Your task to perform on an android device: change notifications settings Image 0: 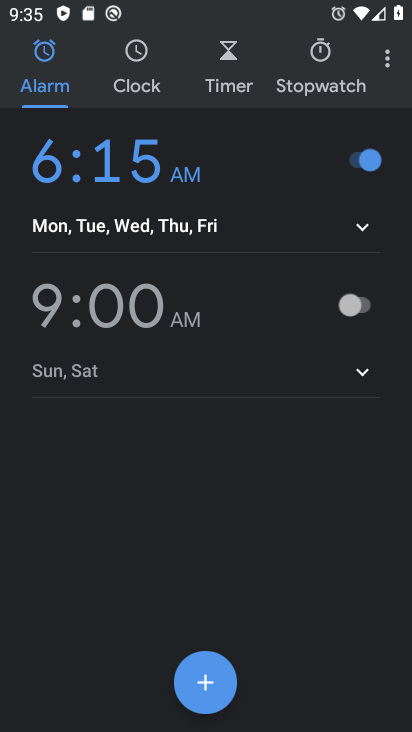
Step 0: press home button
Your task to perform on an android device: change notifications settings Image 1: 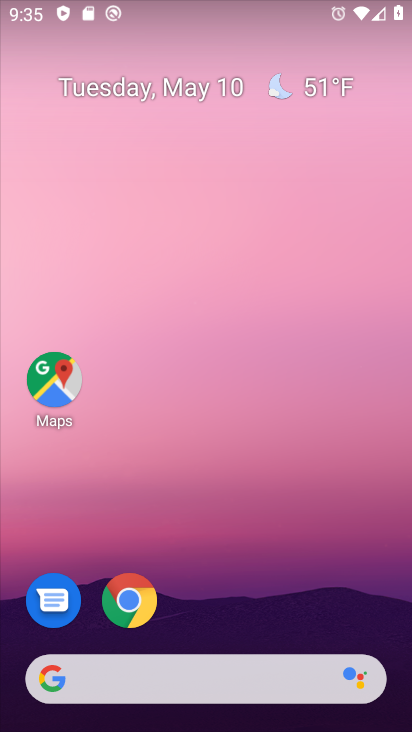
Step 1: drag from (364, 630) to (291, 130)
Your task to perform on an android device: change notifications settings Image 2: 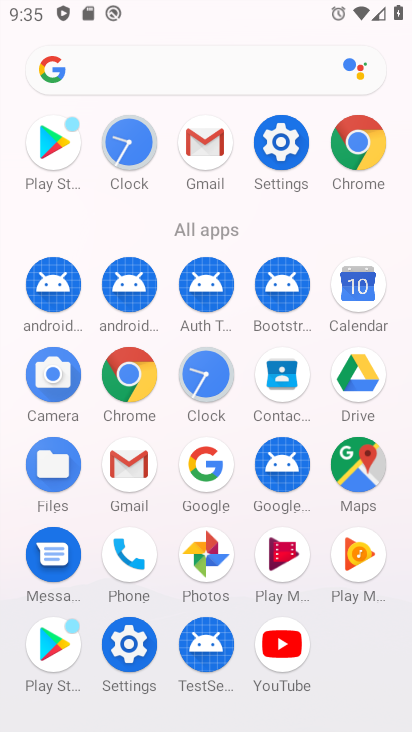
Step 2: click (131, 647)
Your task to perform on an android device: change notifications settings Image 3: 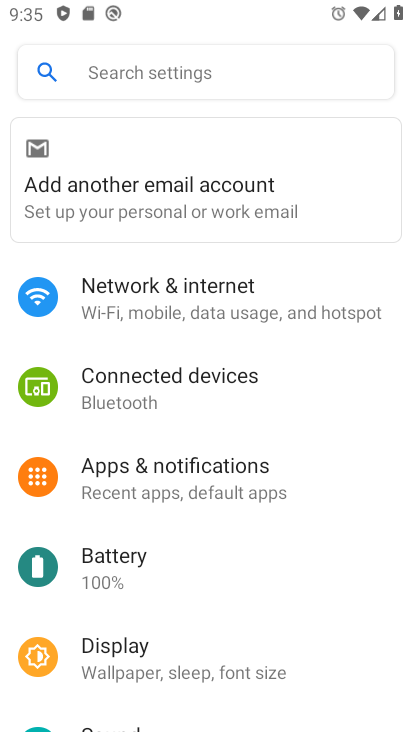
Step 3: click (116, 471)
Your task to perform on an android device: change notifications settings Image 4: 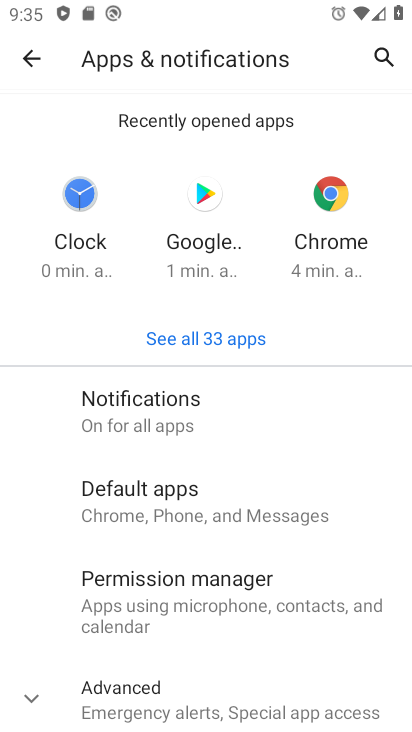
Step 4: click (114, 387)
Your task to perform on an android device: change notifications settings Image 5: 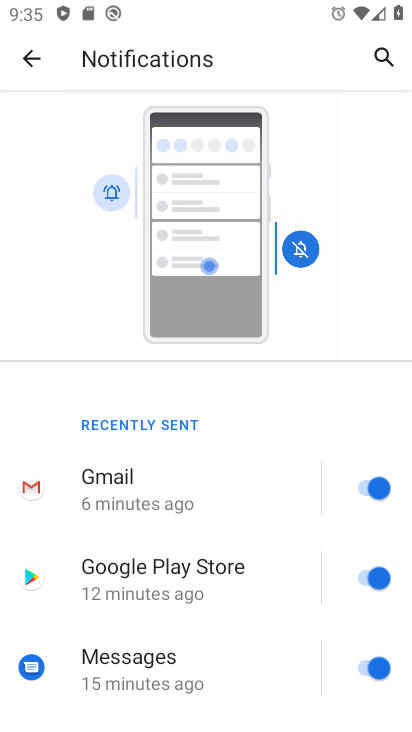
Step 5: drag from (313, 667) to (239, 69)
Your task to perform on an android device: change notifications settings Image 6: 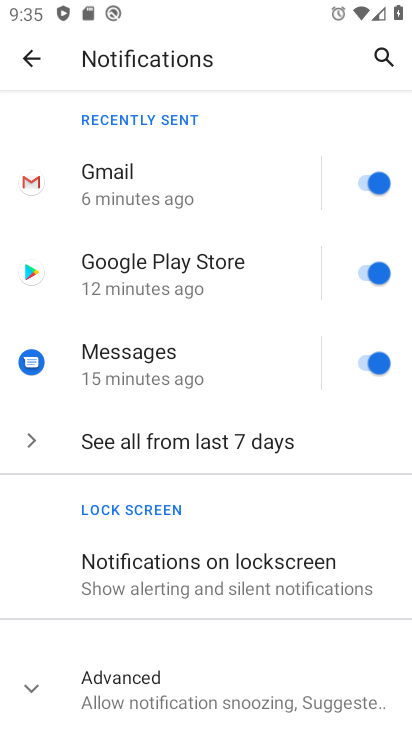
Step 6: click (24, 687)
Your task to perform on an android device: change notifications settings Image 7: 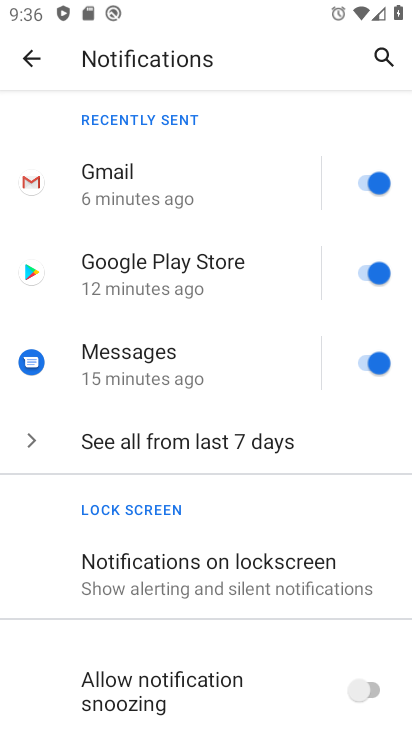
Step 7: drag from (245, 629) to (215, 129)
Your task to perform on an android device: change notifications settings Image 8: 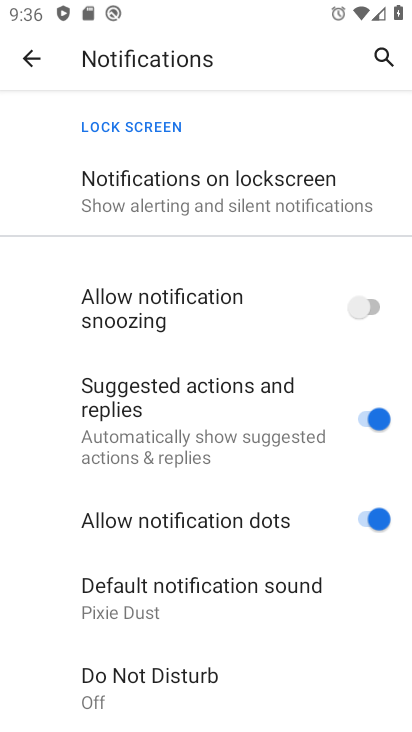
Step 8: click (364, 520)
Your task to perform on an android device: change notifications settings Image 9: 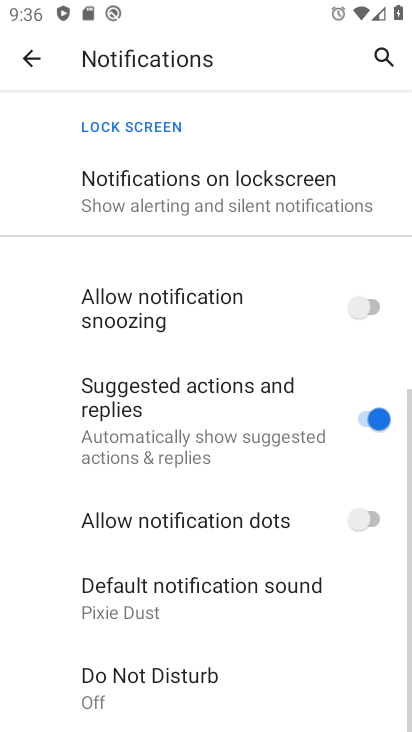
Step 9: click (370, 295)
Your task to perform on an android device: change notifications settings Image 10: 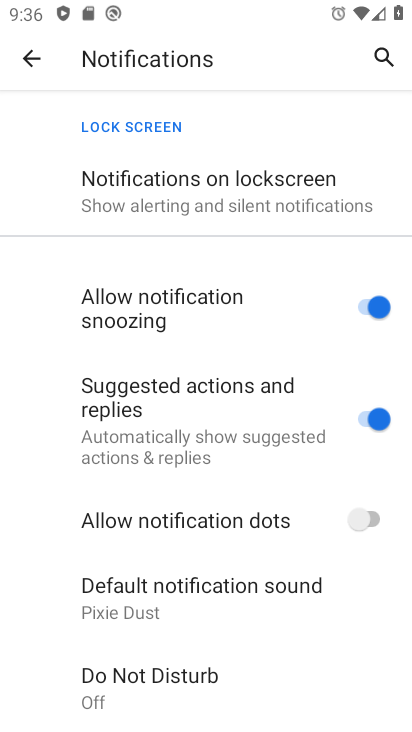
Step 10: task complete